Your task to perform on an android device: turn on notifications settings in the gmail app Image 0: 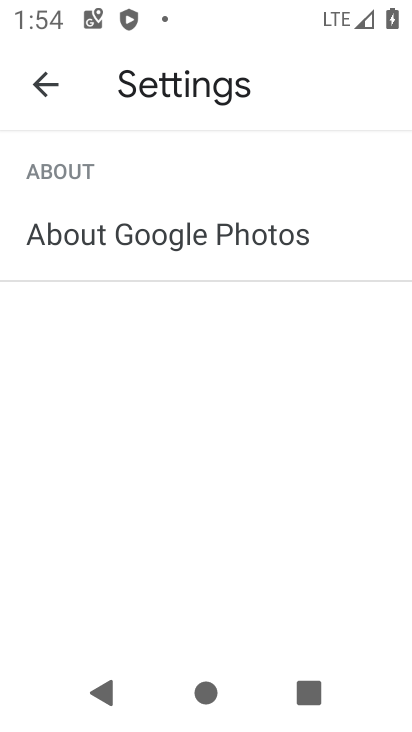
Step 0: press home button
Your task to perform on an android device: turn on notifications settings in the gmail app Image 1: 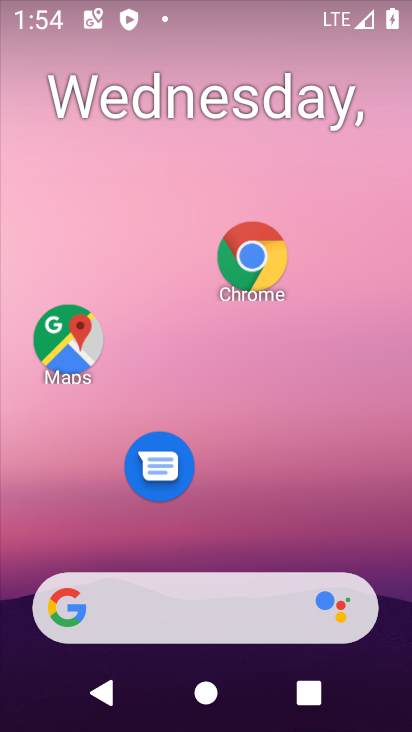
Step 1: drag from (252, 497) to (263, 69)
Your task to perform on an android device: turn on notifications settings in the gmail app Image 2: 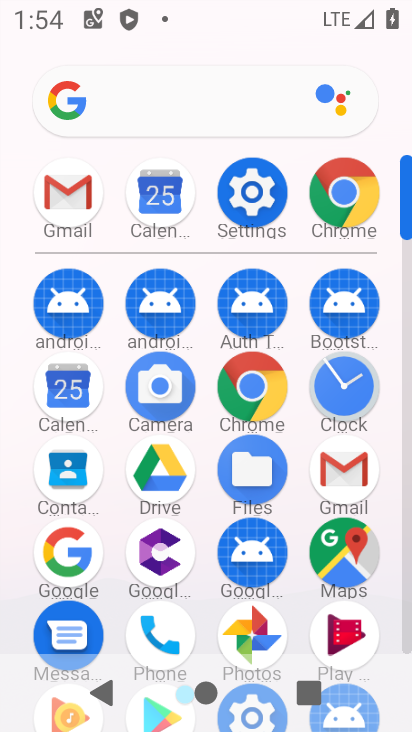
Step 2: click (339, 474)
Your task to perform on an android device: turn on notifications settings in the gmail app Image 3: 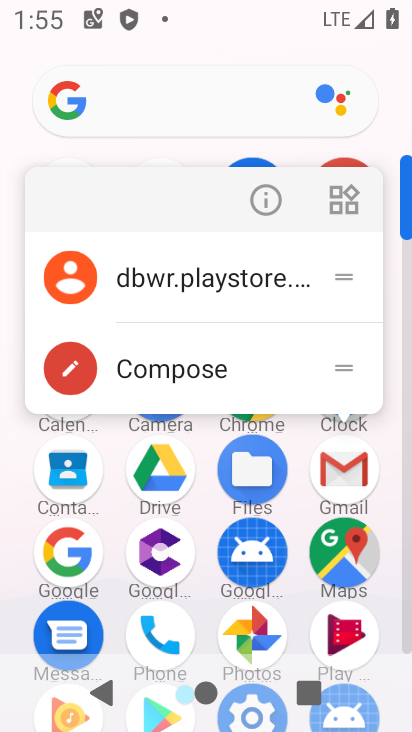
Step 3: click (259, 199)
Your task to perform on an android device: turn on notifications settings in the gmail app Image 4: 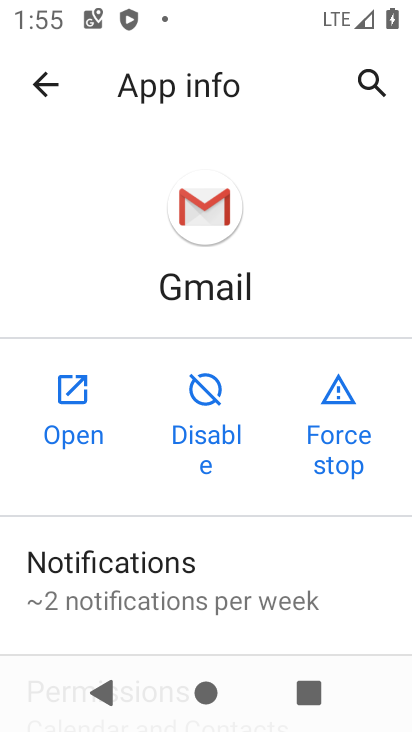
Step 4: click (171, 602)
Your task to perform on an android device: turn on notifications settings in the gmail app Image 5: 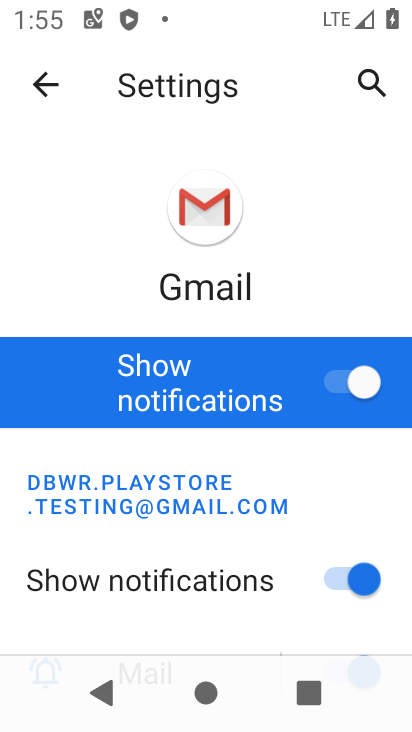
Step 5: task complete